Your task to perform on an android device: What's the weather? Image 0: 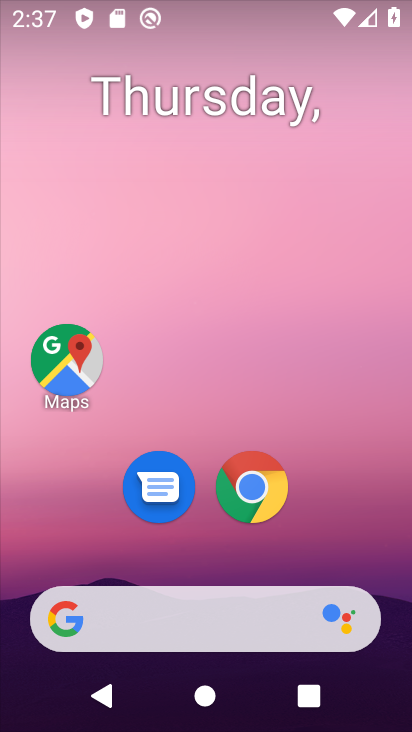
Step 0: click (42, 650)
Your task to perform on an android device: What's the weather? Image 1: 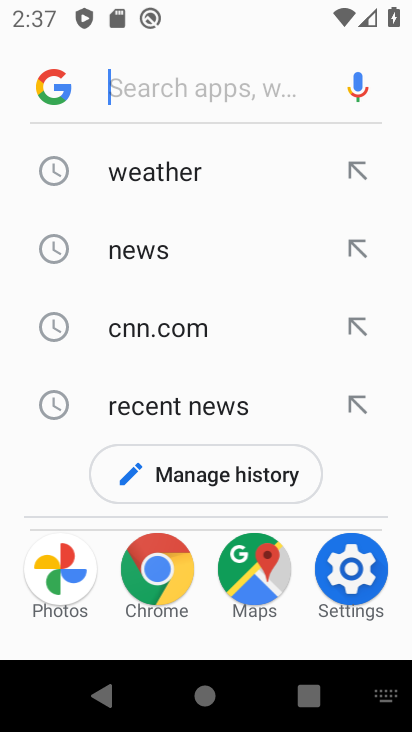
Step 1: click (54, 107)
Your task to perform on an android device: What's the weather? Image 2: 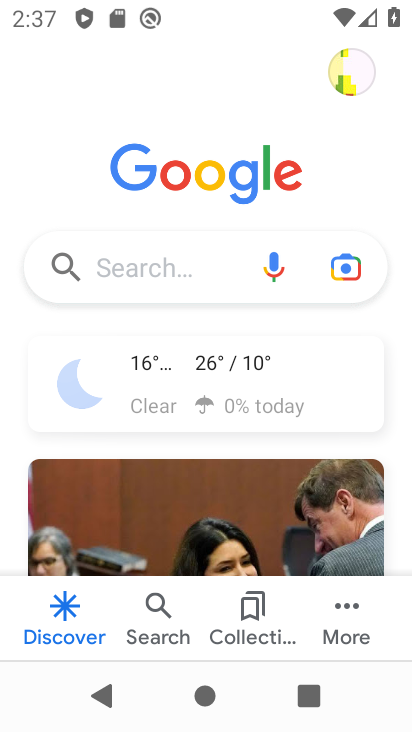
Step 2: click (206, 387)
Your task to perform on an android device: What's the weather? Image 3: 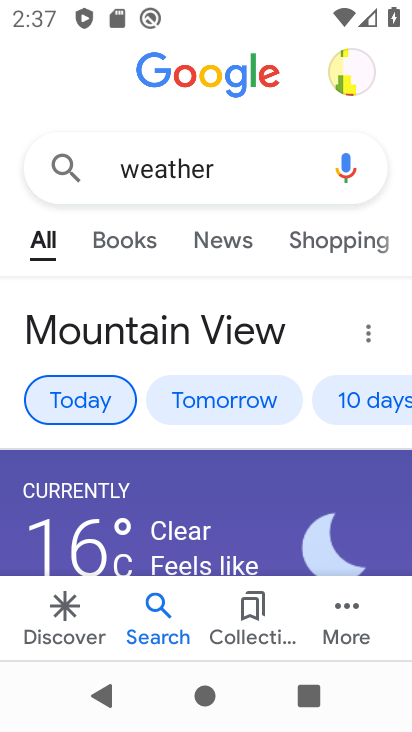
Step 3: task complete